Your task to perform on an android device: turn off improve location accuracy Image 0: 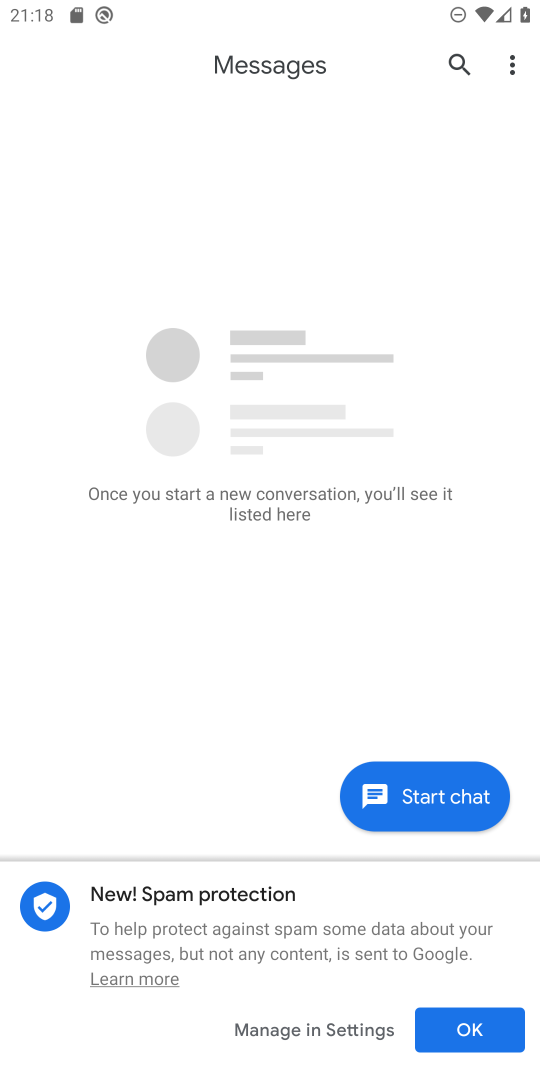
Step 0: press home button
Your task to perform on an android device: turn off improve location accuracy Image 1: 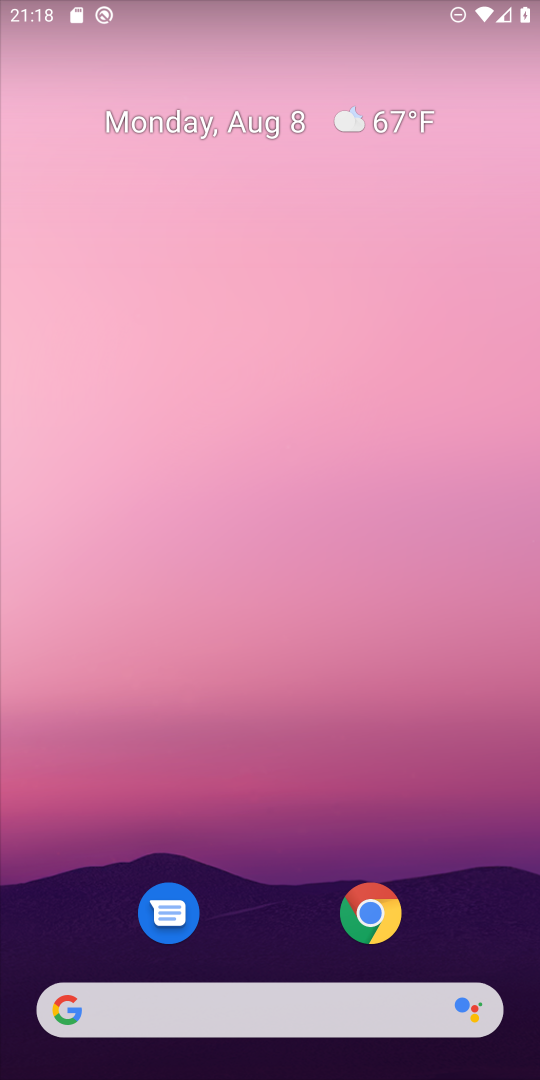
Step 1: drag from (201, 1009) to (333, 239)
Your task to perform on an android device: turn off improve location accuracy Image 2: 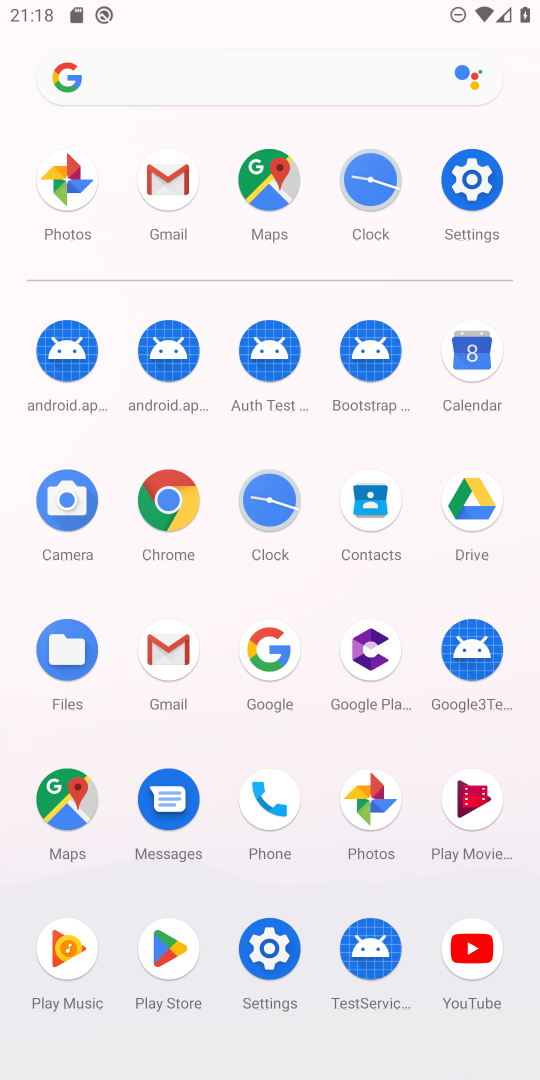
Step 2: click (469, 181)
Your task to perform on an android device: turn off improve location accuracy Image 3: 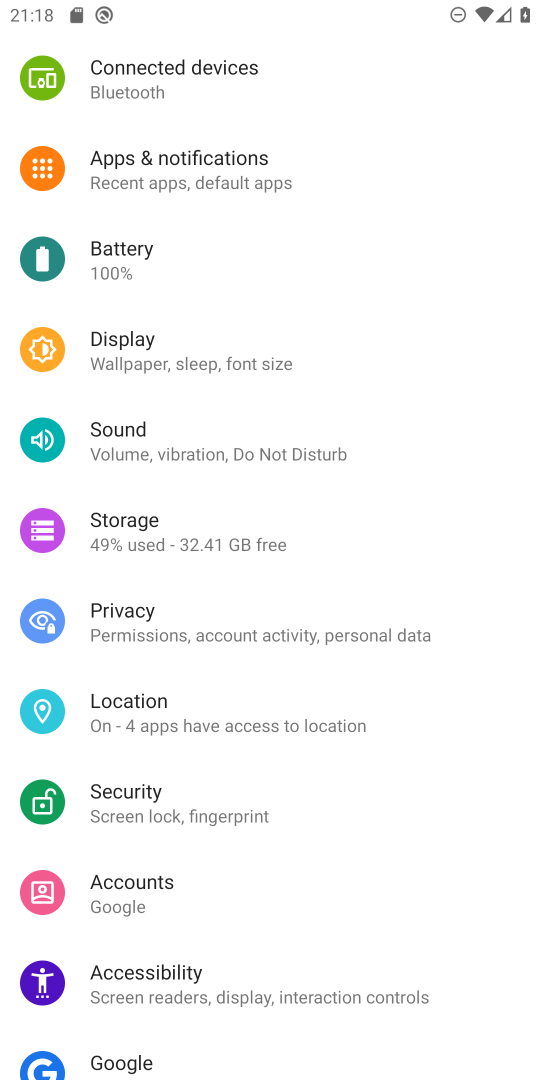
Step 3: drag from (221, 140) to (197, 494)
Your task to perform on an android device: turn off improve location accuracy Image 4: 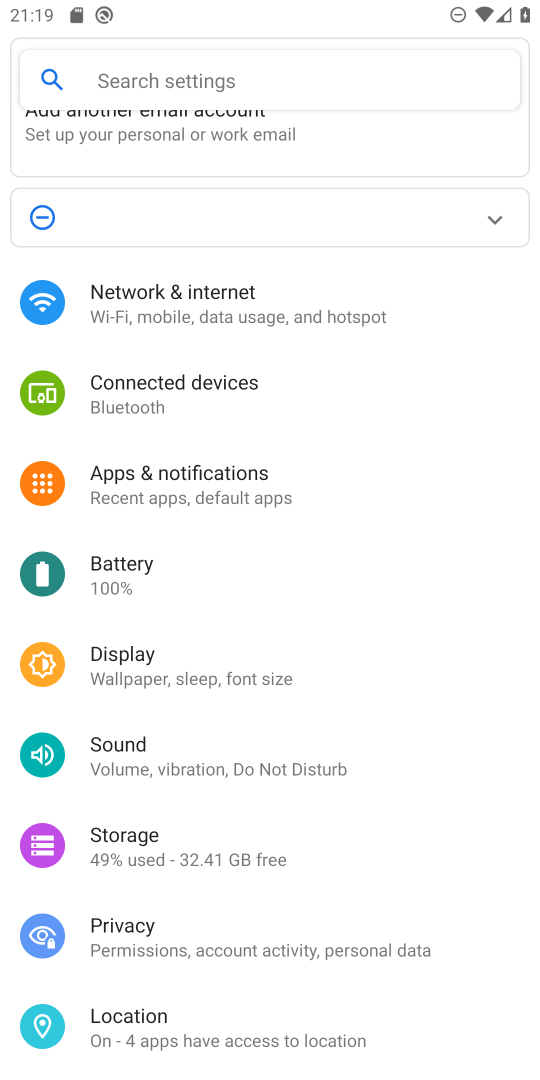
Step 4: click (149, 1017)
Your task to perform on an android device: turn off improve location accuracy Image 5: 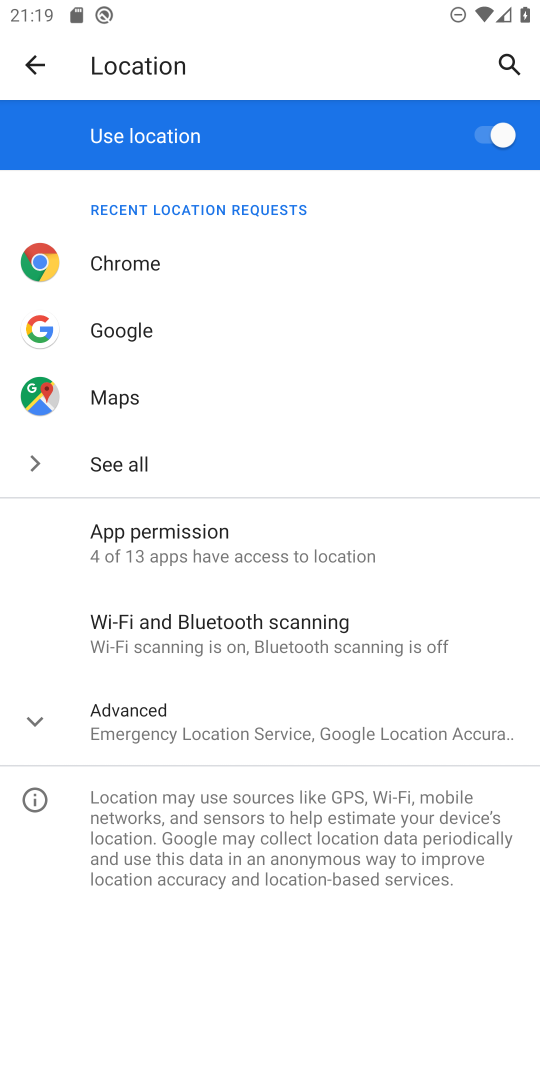
Step 5: click (256, 732)
Your task to perform on an android device: turn off improve location accuracy Image 6: 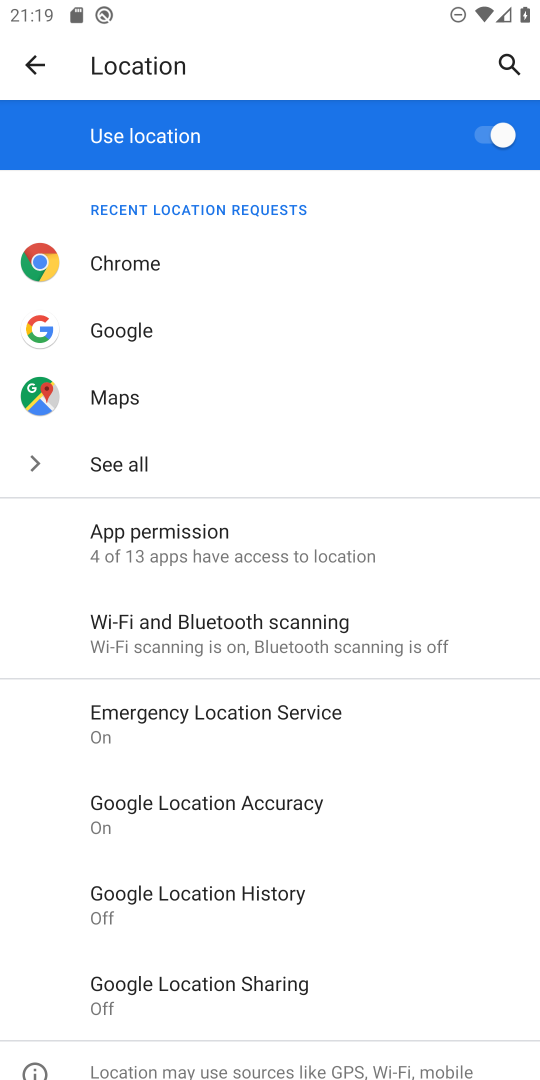
Step 6: click (260, 805)
Your task to perform on an android device: turn off improve location accuracy Image 7: 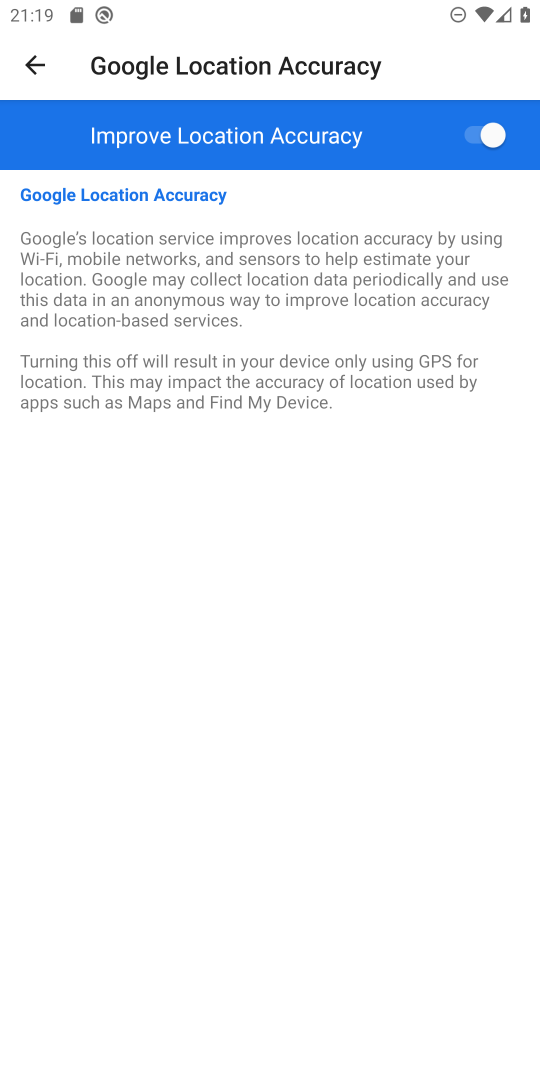
Step 7: click (469, 140)
Your task to perform on an android device: turn off improve location accuracy Image 8: 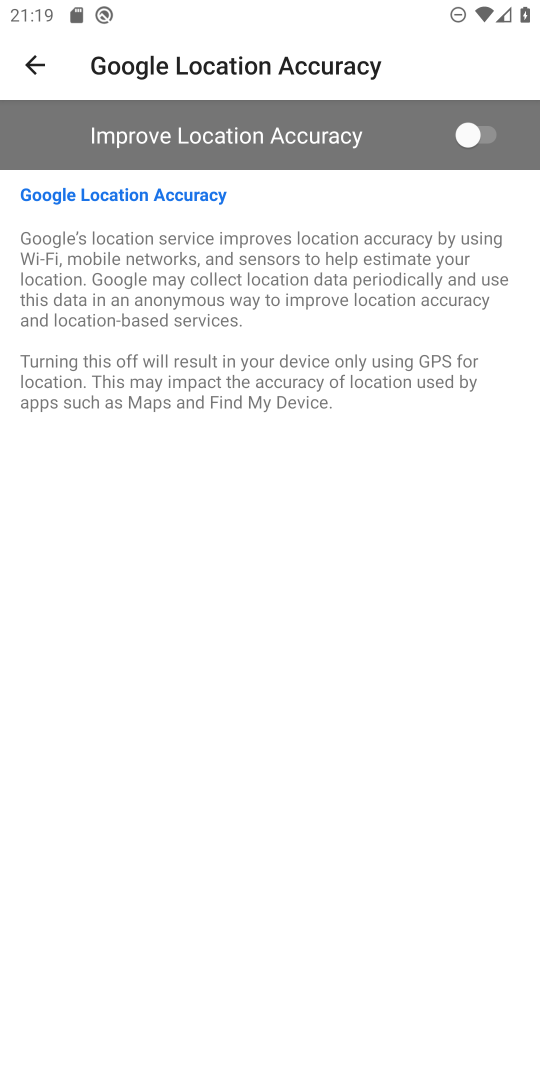
Step 8: task complete